Your task to perform on an android device: Open settings Image 0: 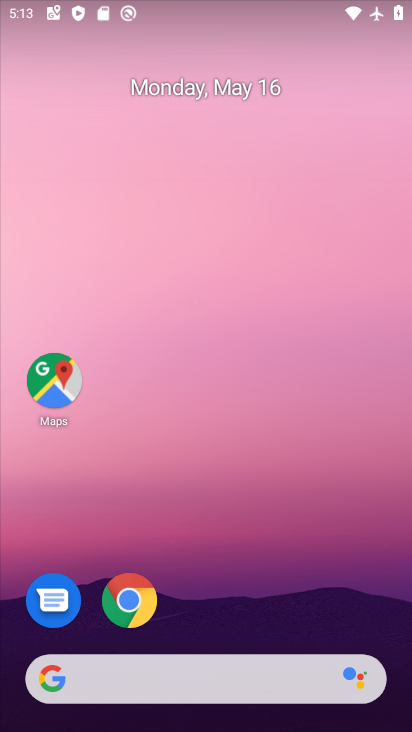
Step 0: drag from (212, 552) to (306, 0)
Your task to perform on an android device: Open settings Image 1: 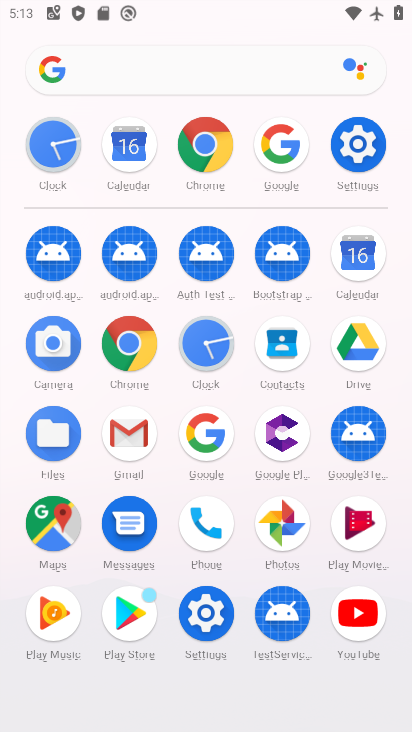
Step 1: click (350, 137)
Your task to perform on an android device: Open settings Image 2: 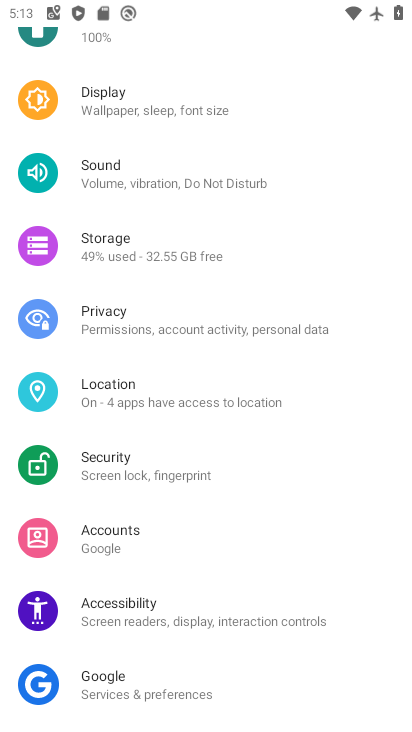
Step 2: task complete